Your task to perform on an android device: see sites visited before in the chrome app Image 0: 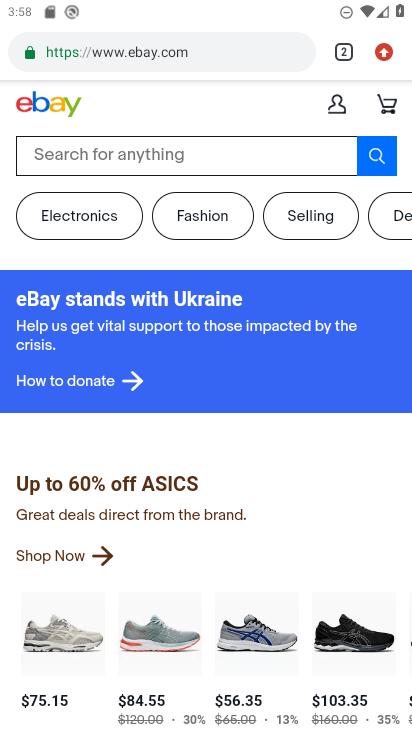
Step 0: click (376, 47)
Your task to perform on an android device: see sites visited before in the chrome app Image 1: 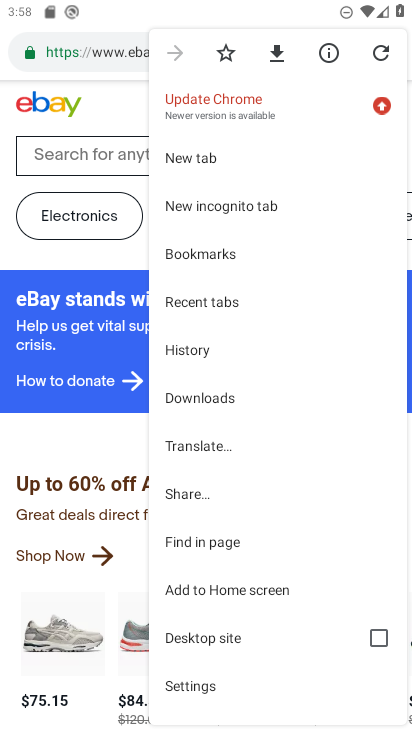
Step 1: click (203, 347)
Your task to perform on an android device: see sites visited before in the chrome app Image 2: 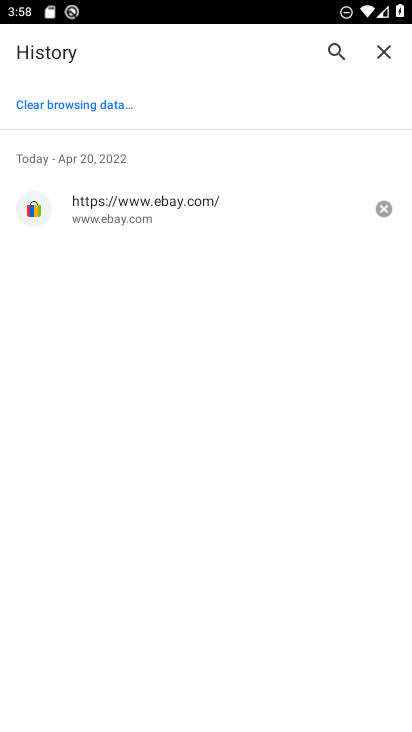
Step 2: task complete